Your task to perform on an android device: Open location settings Image 0: 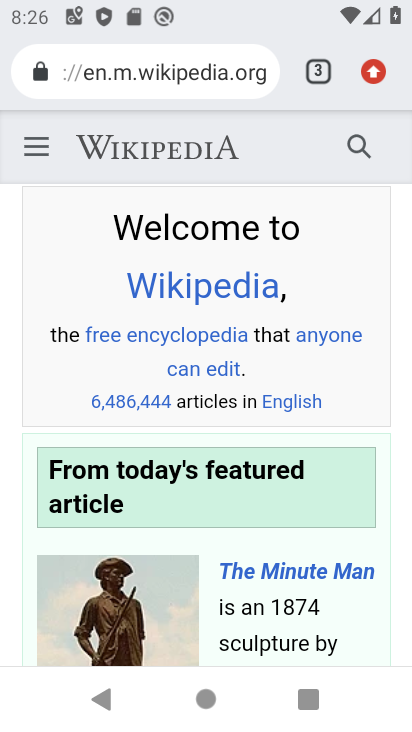
Step 0: press home button
Your task to perform on an android device: Open location settings Image 1: 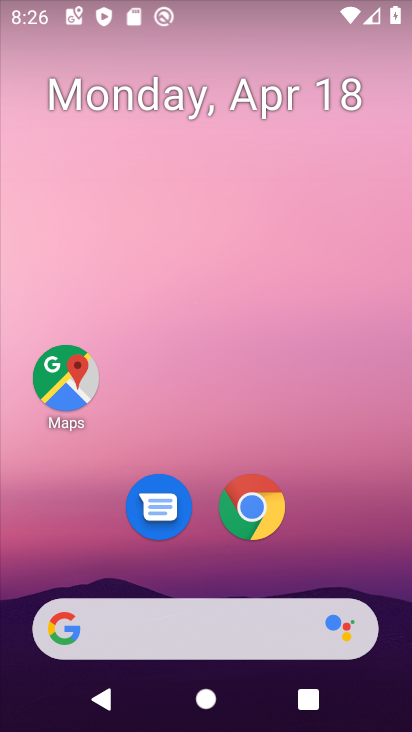
Step 1: drag from (226, 562) to (241, 19)
Your task to perform on an android device: Open location settings Image 2: 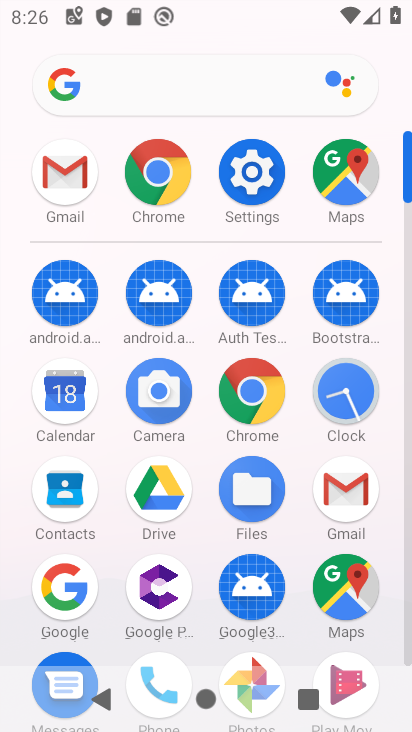
Step 2: click (260, 174)
Your task to perform on an android device: Open location settings Image 3: 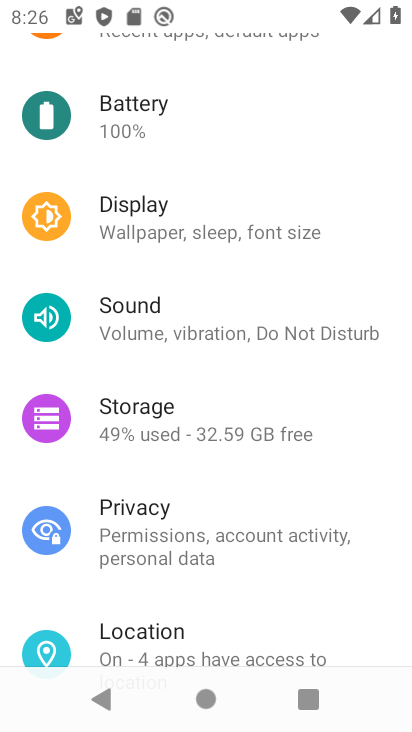
Step 3: click (209, 639)
Your task to perform on an android device: Open location settings Image 4: 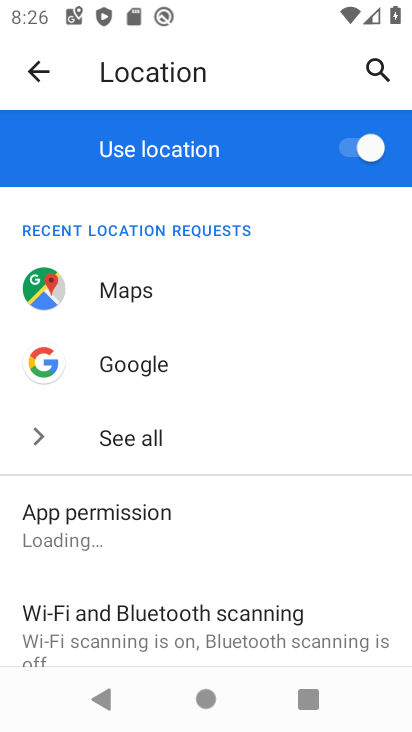
Step 4: task complete